Your task to perform on an android device: Open ESPN.com Image 0: 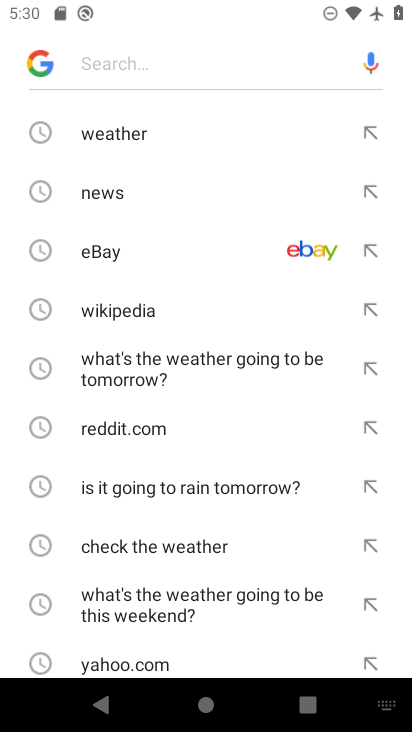
Step 0: press home button
Your task to perform on an android device: Open ESPN.com Image 1: 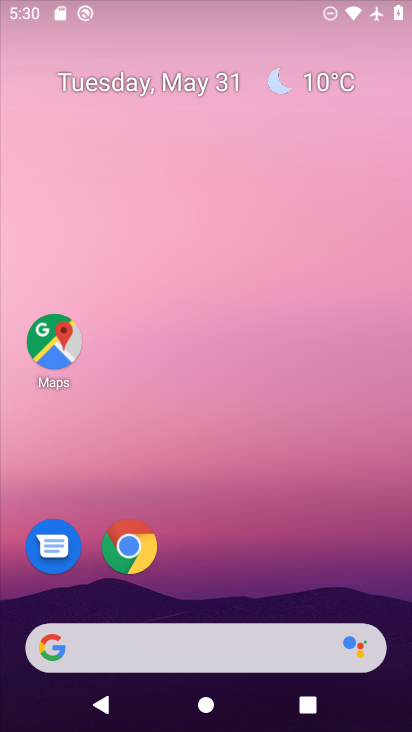
Step 1: drag from (283, 499) to (194, 20)
Your task to perform on an android device: Open ESPN.com Image 2: 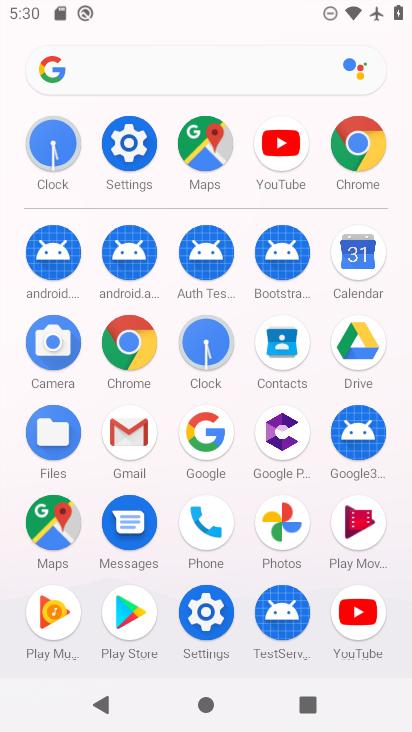
Step 2: click (357, 155)
Your task to perform on an android device: Open ESPN.com Image 3: 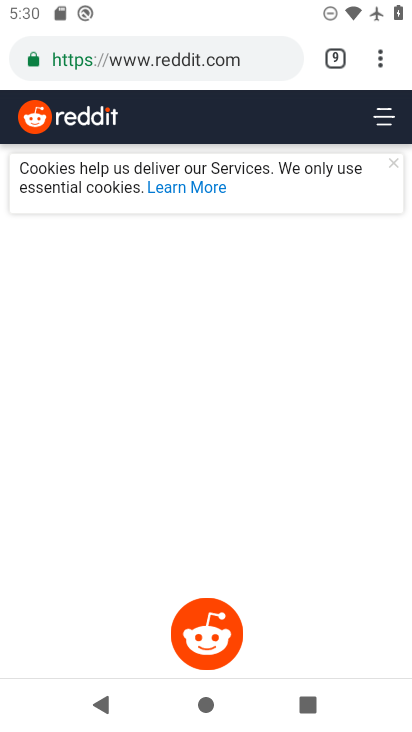
Step 3: click (333, 50)
Your task to perform on an android device: Open ESPN.com Image 4: 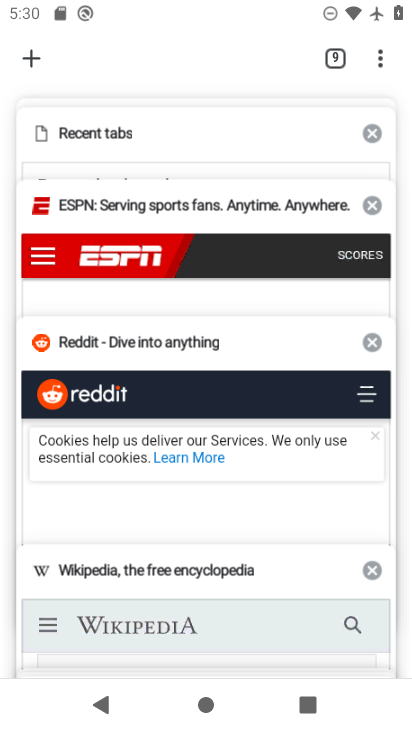
Step 4: click (32, 60)
Your task to perform on an android device: Open ESPN.com Image 5: 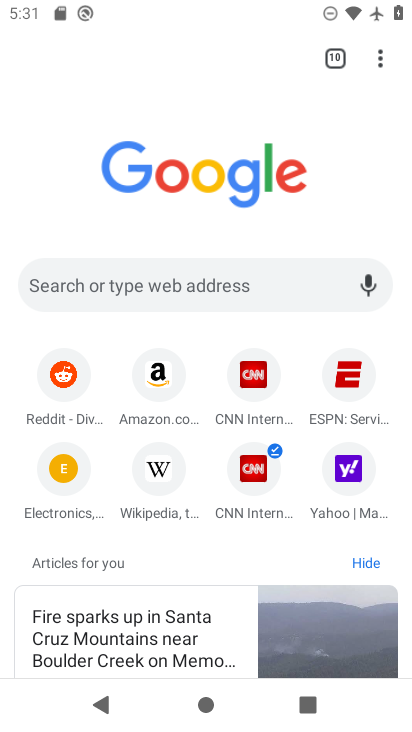
Step 5: click (355, 389)
Your task to perform on an android device: Open ESPN.com Image 6: 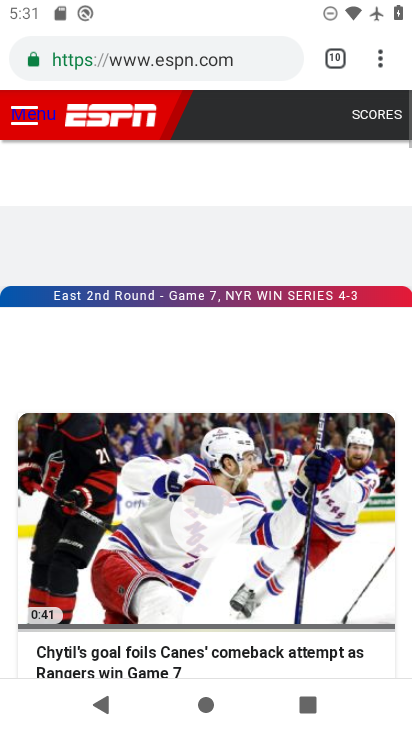
Step 6: task complete